Your task to perform on an android device: Open Google Chrome and click the shortcut for Amazon.com Image 0: 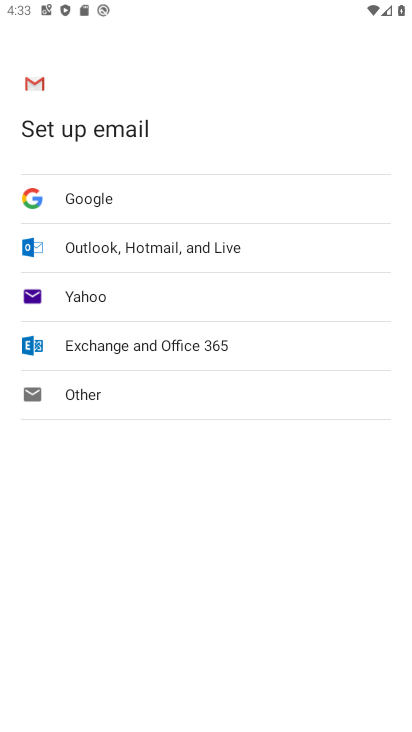
Step 0: press back button
Your task to perform on an android device: Open Google Chrome and click the shortcut for Amazon.com Image 1: 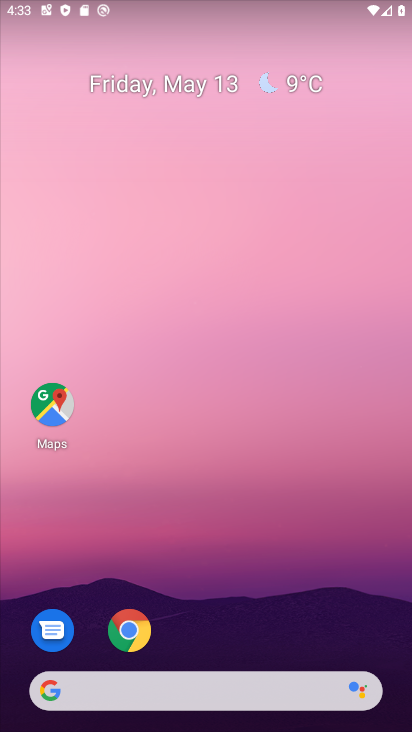
Step 1: drag from (269, 541) to (222, 16)
Your task to perform on an android device: Open Google Chrome and click the shortcut for Amazon.com Image 2: 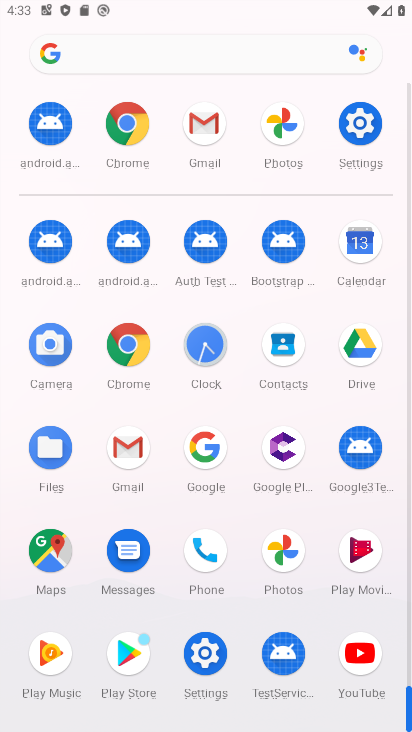
Step 2: click (125, 342)
Your task to perform on an android device: Open Google Chrome and click the shortcut for Amazon.com Image 3: 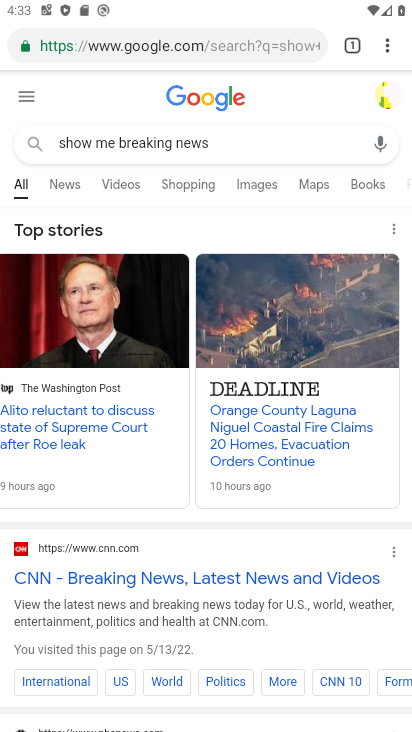
Step 3: click (112, 51)
Your task to perform on an android device: Open Google Chrome and click the shortcut for Amazon.com Image 4: 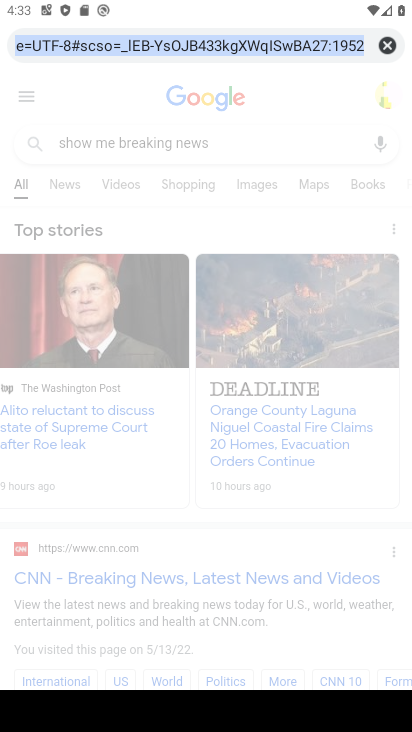
Step 4: click (386, 48)
Your task to perform on an android device: Open Google Chrome and click the shortcut for Amazon.com Image 5: 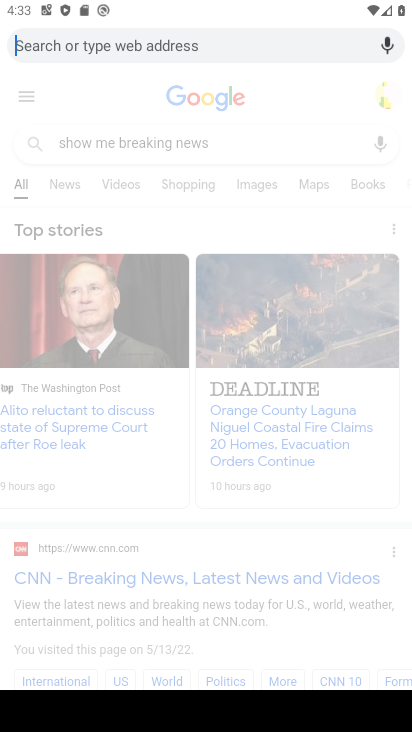
Step 5: type "Amazon.com"
Your task to perform on an android device: Open Google Chrome and click the shortcut for Amazon.com Image 6: 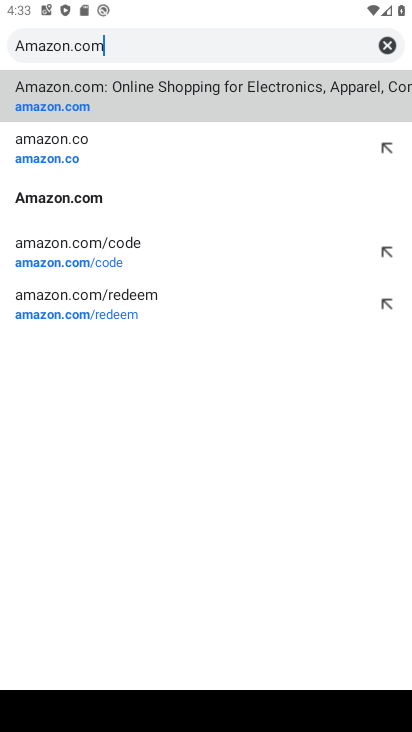
Step 6: type ""
Your task to perform on an android device: Open Google Chrome and click the shortcut for Amazon.com Image 7: 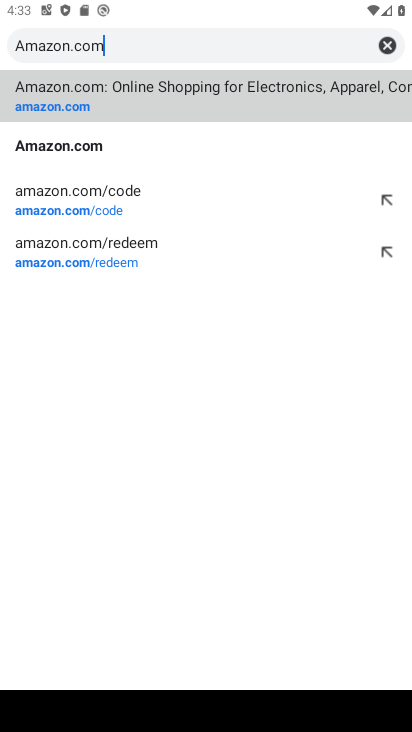
Step 7: click (111, 103)
Your task to perform on an android device: Open Google Chrome and click the shortcut for Amazon.com Image 8: 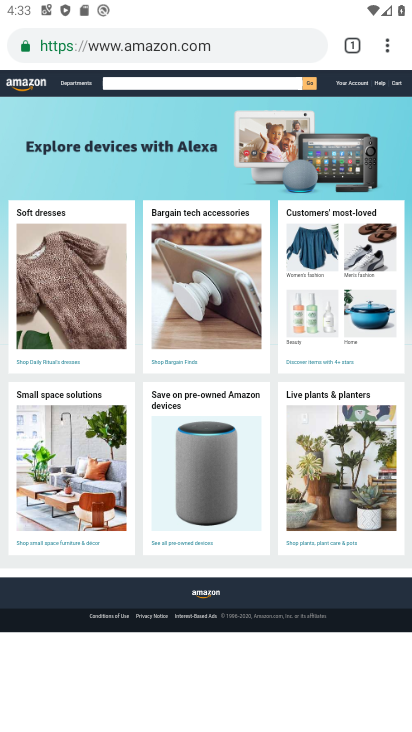
Step 8: drag from (382, 46) to (251, 466)
Your task to perform on an android device: Open Google Chrome and click the shortcut for Amazon.com Image 9: 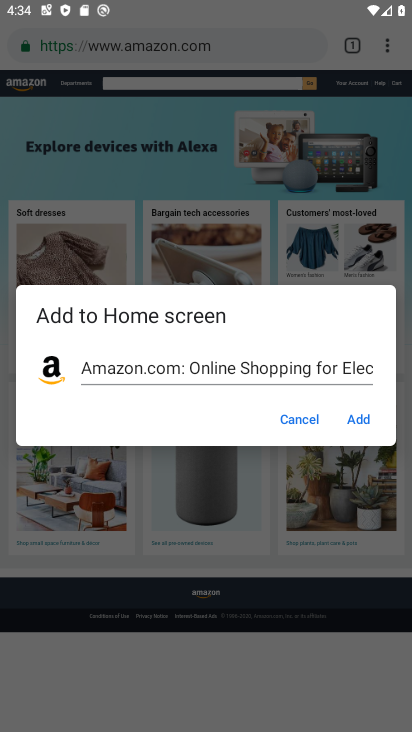
Step 9: click (354, 414)
Your task to perform on an android device: Open Google Chrome and click the shortcut for Amazon.com Image 10: 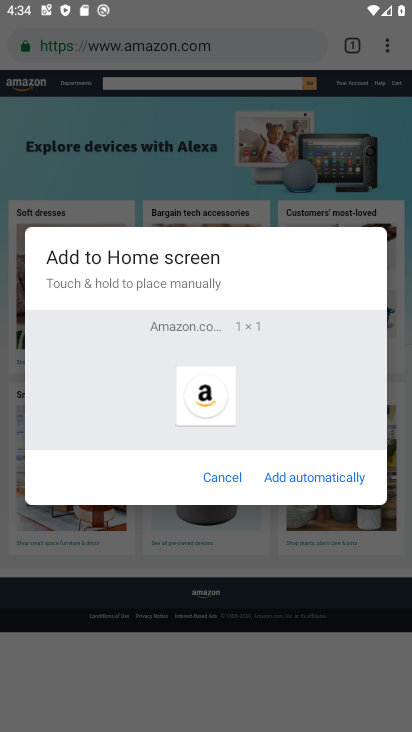
Step 10: click (313, 482)
Your task to perform on an android device: Open Google Chrome and click the shortcut for Amazon.com Image 11: 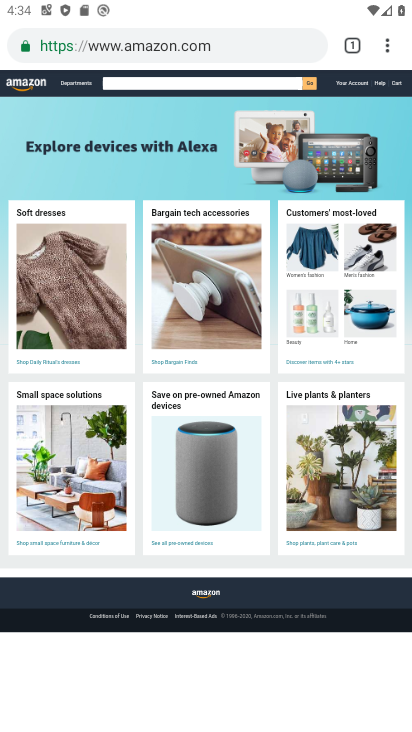
Step 11: task complete